Your task to perform on an android device: Show me popular videos on Youtube Image 0: 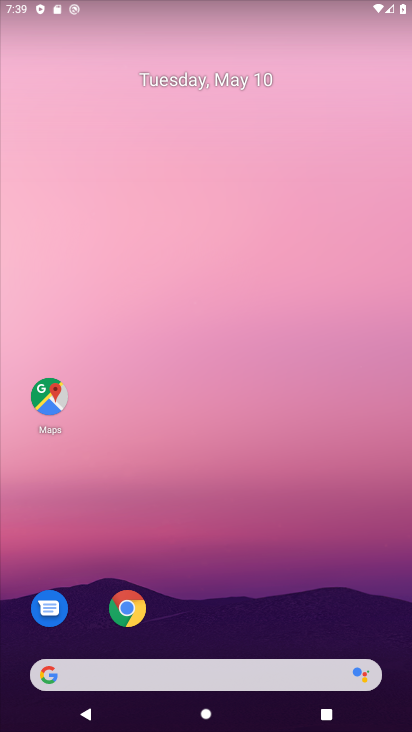
Step 0: drag from (256, 623) to (258, 254)
Your task to perform on an android device: Show me popular videos on Youtube Image 1: 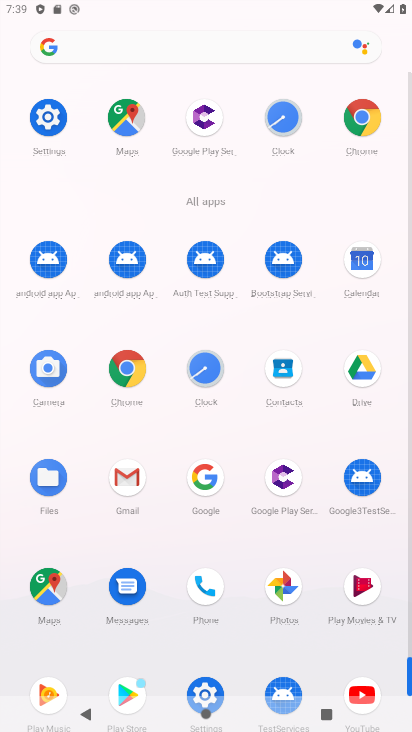
Step 1: click (358, 684)
Your task to perform on an android device: Show me popular videos on Youtube Image 2: 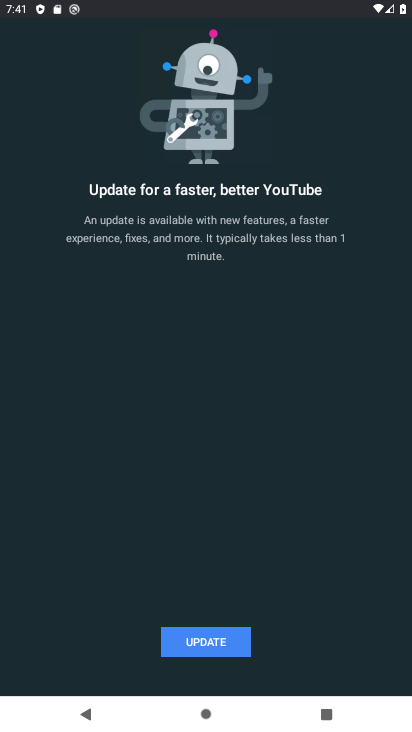
Step 2: task complete